Your task to perform on an android device: change the clock display to digital Image 0: 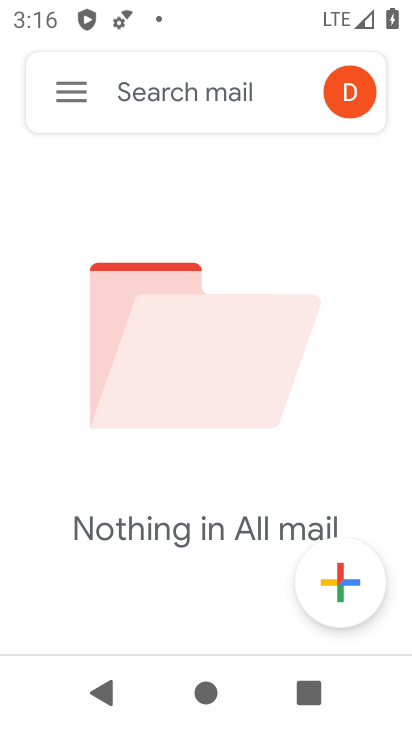
Step 0: press home button
Your task to perform on an android device: change the clock display to digital Image 1: 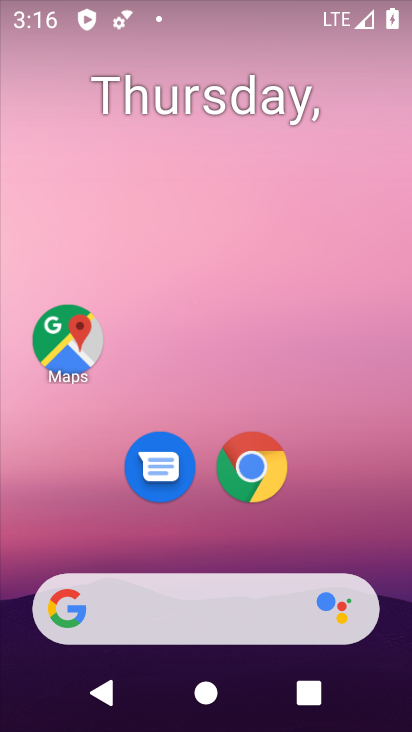
Step 1: drag from (105, 604) to (258, 171)
Your task to perform on an android device: change the clock display to digital Image 2: 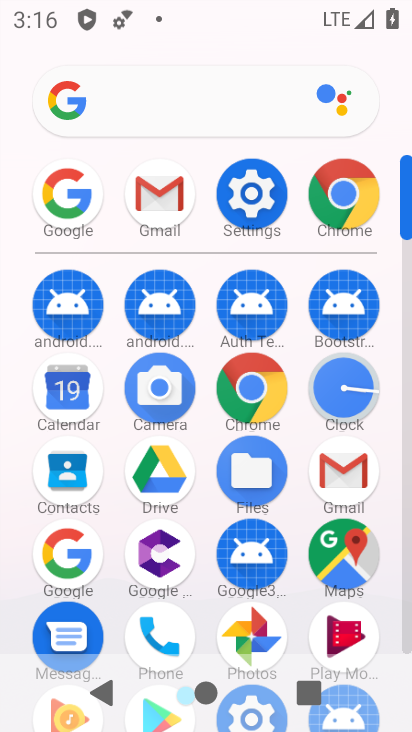
Step 2: click (336, 386)
Your task to perform on an android device: change the clock display to digital Image 3: 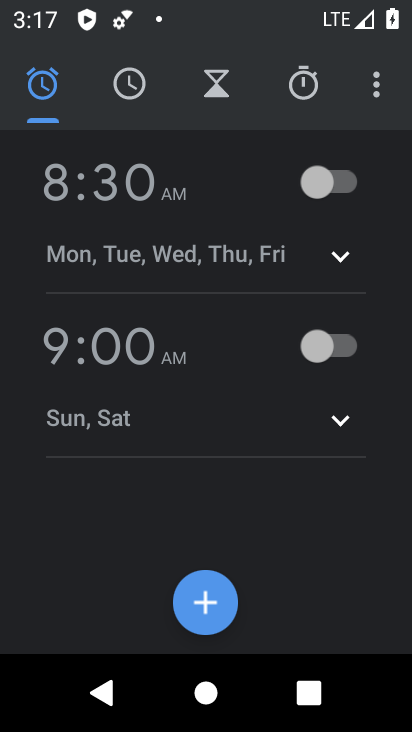
Step 3: click (370, 85)
Your task to perform on an android device: change the clock display to digital Image 4: 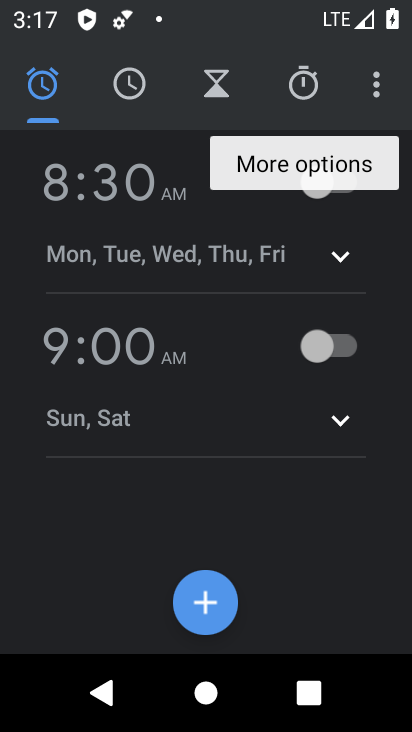
Step 4: click (370, 85)
Your task to perform on an android device: change the clock display to digital Image 5: 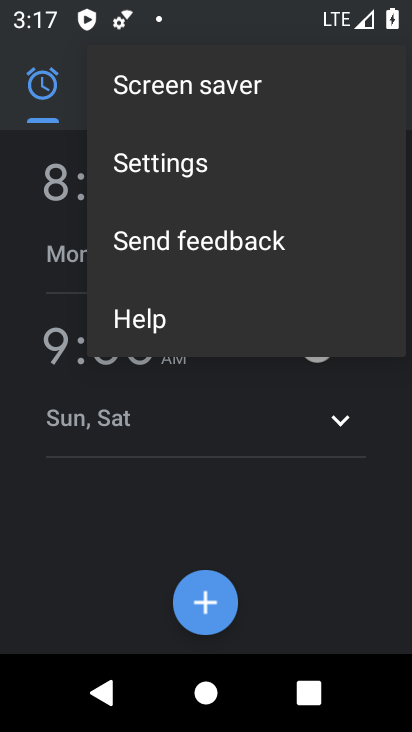
Step 5: click (221, 157)
Your task to perform on an android device: change the clock display to digital Image 6: 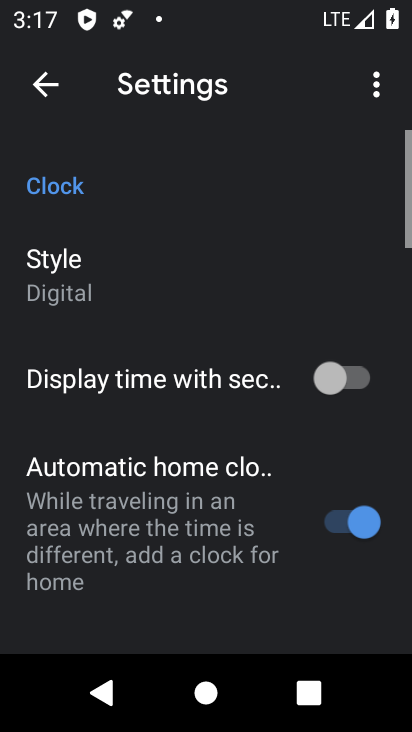
Step 6: click (98, 265)
Your task to perform on an android device: change the clock display to digital Image 7: 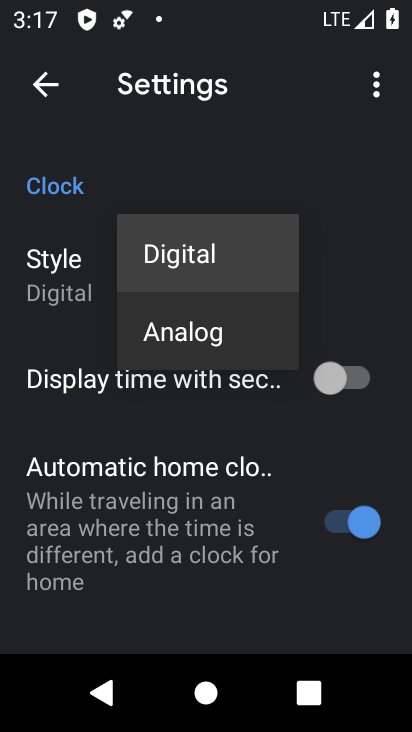
Step 7: click (212, 277)
Your task to perform on an android device: change the clock display to digital Image 8: 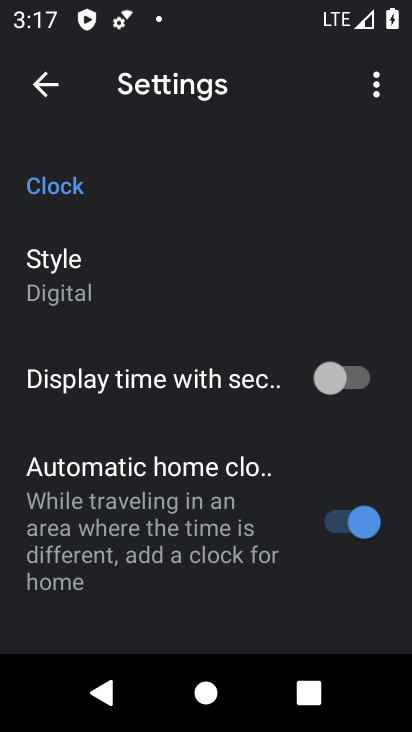
Step 8: task complete